Your task to perform on an android device: Go to calendar. Show me events next week Image 0: 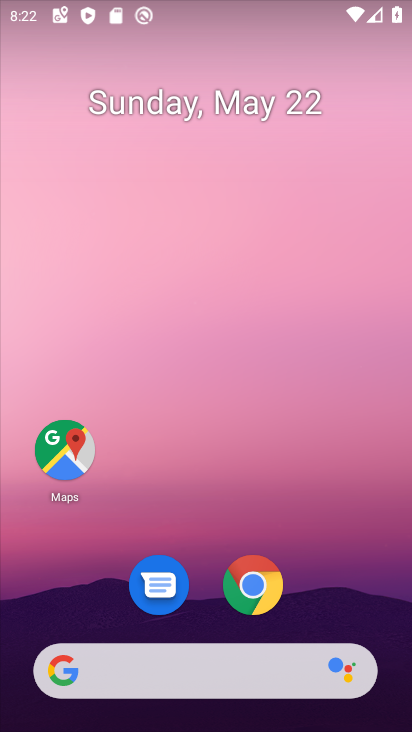
Step 0: drag from (288, 510) to (271, 40)
Your task to perform on an android device: Go to calendar. Show me events next week Image 1: 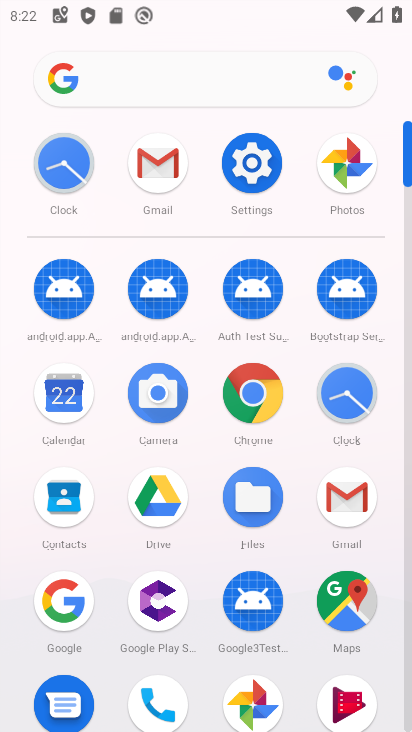
Step 1: click (48, 390)
Your task to perform on an android device: Go to calendar. Show me events next week Image 2: 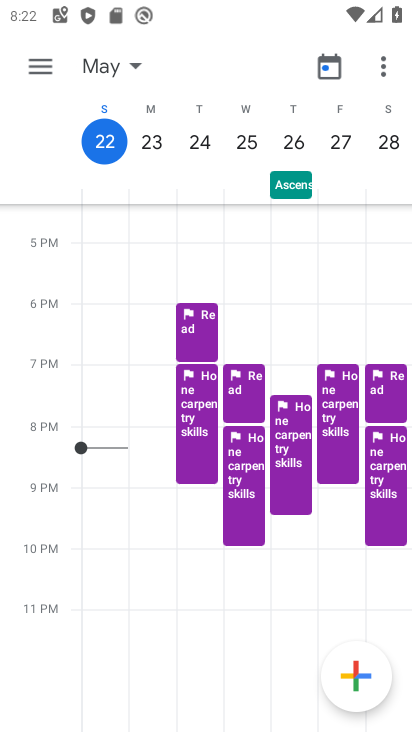
Step 2: task complete